Your task to perform on an android device: What's the weather going to be this weekend? Image 0: 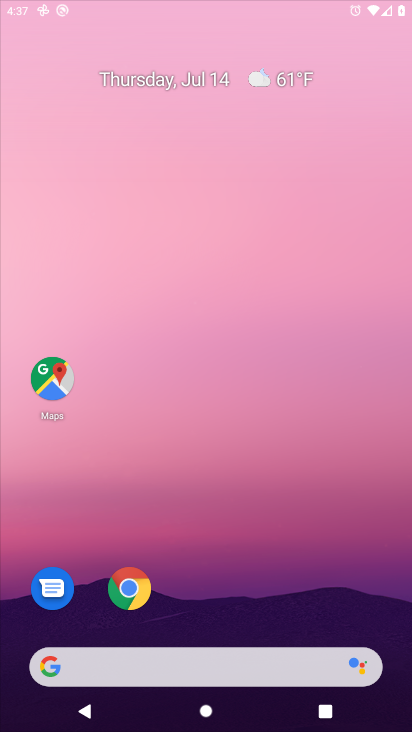
Step 0: press home button
Your task to perform on an android device: What's the weather going to be this weekend? Image 1: 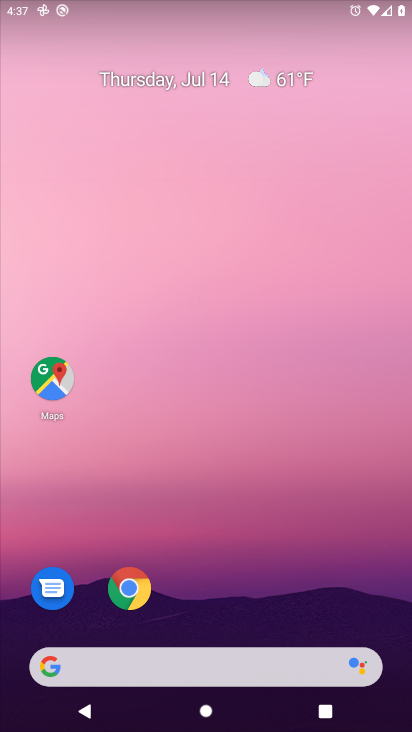
Step 1: click (48, 664)
Your task to perform on an android device: What's the weather going to be this weekend? Image 2: 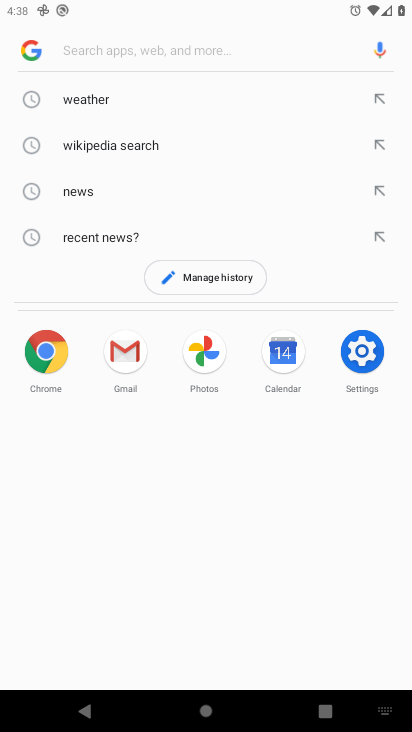
Step 2: type "weather going to be this weekend?"
Your task to perform on an android device: What's the weather going to be this weekend? Image 3: 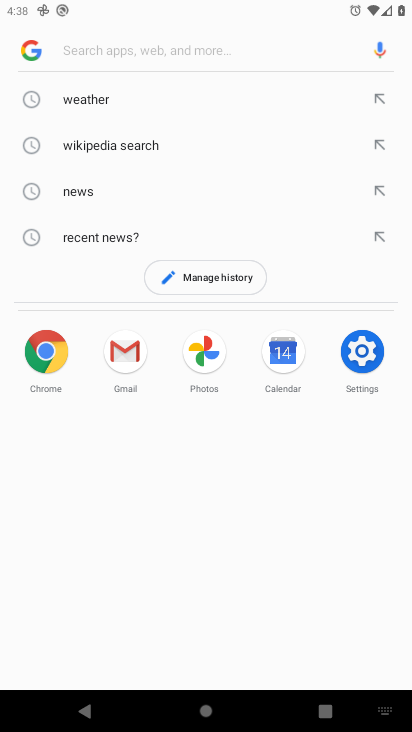
Step 3: click (166, 50)
Your task to perform on an android device: What's the weather going to be this weekend? Image 4: 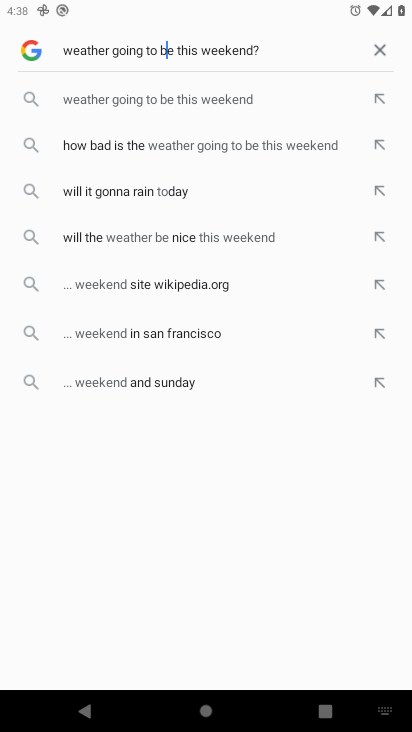
Step 4: click (153, 99)
Your task to perform on an android device: What's the weather going to be this weekend? Image 5: 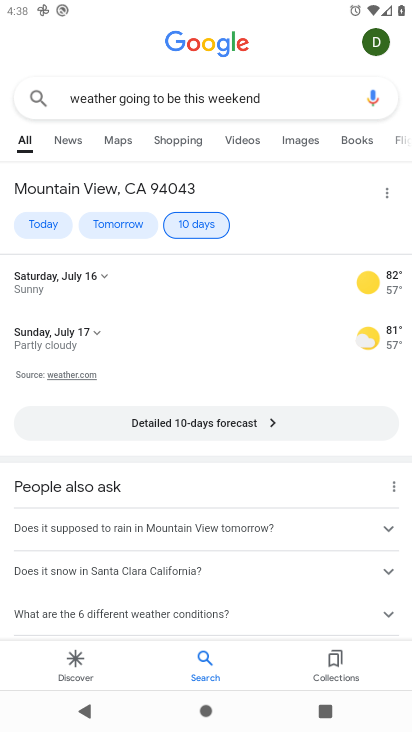
Step 5: task complete